Your task to perform on an android device: See recent photos Image 0: 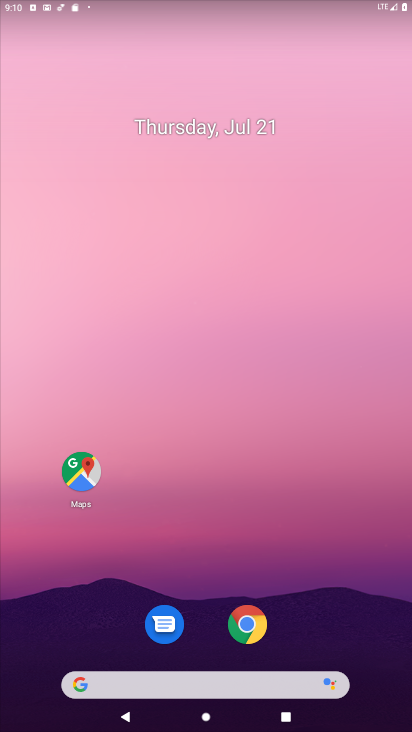
Step 0: drag from (67, 522) to (253, 117)
Your task to perform on an android device: See recent photos Image 1: 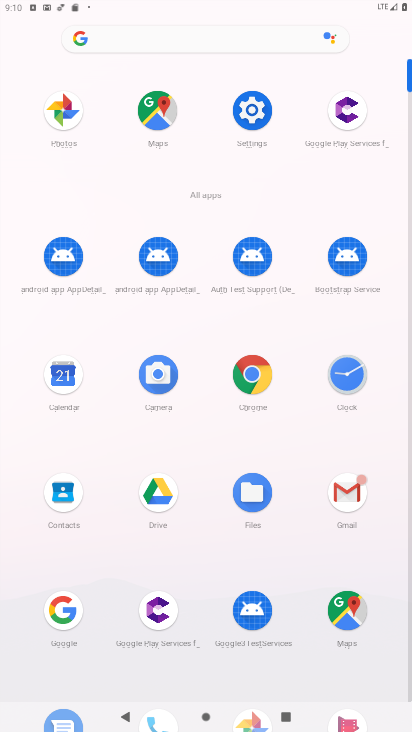
Step 1: click (68, 108)
Your task to perform on an android device: See recent photos Image 2: 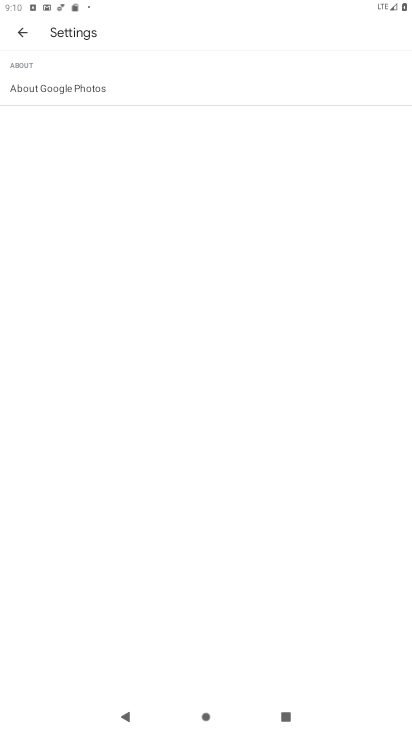
Step 2: task complete